Your task to perform on an android device: turn off picture-in-picture Image 0: 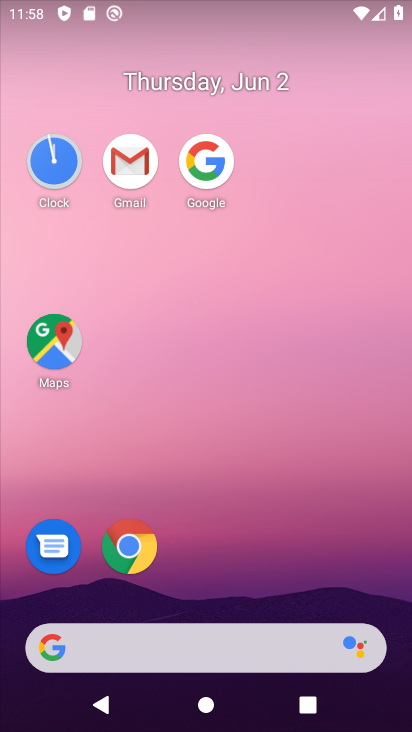
Step 0: click (137, 549)
Your task to perform on an android device: turn off picture-in-picture Image 1: 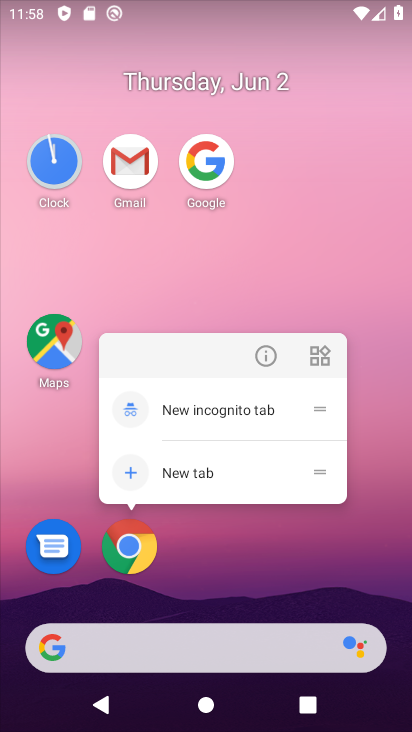
Step 1: click (268, 352)
Your task to perform on an android device: turn off picture-in-picture Image 2: 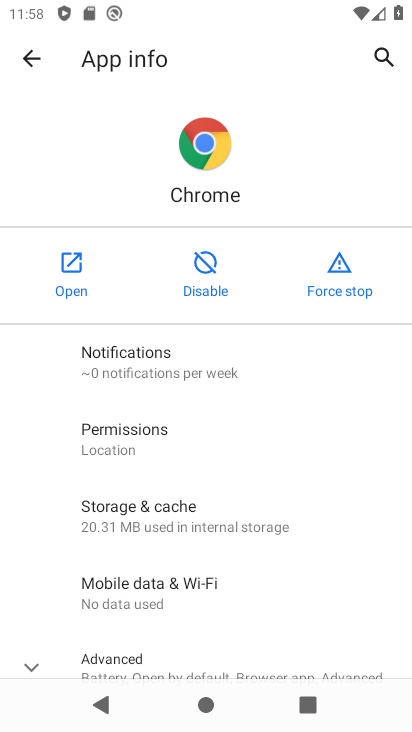
Step 2: drag from (276, 652) to (294, 261)
Your task to perform on an android device: turn off picture-in-picture Image 3: 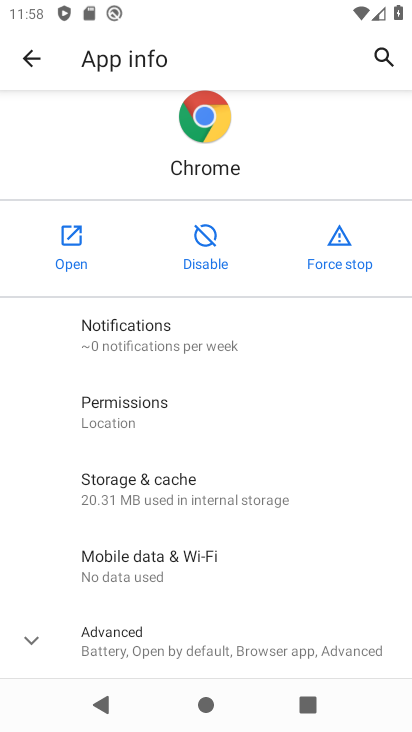
Step 3: drag from (230, 591) to (335, 280)
Your task to perform on an android device: turn off picture-in-picture Image 4: 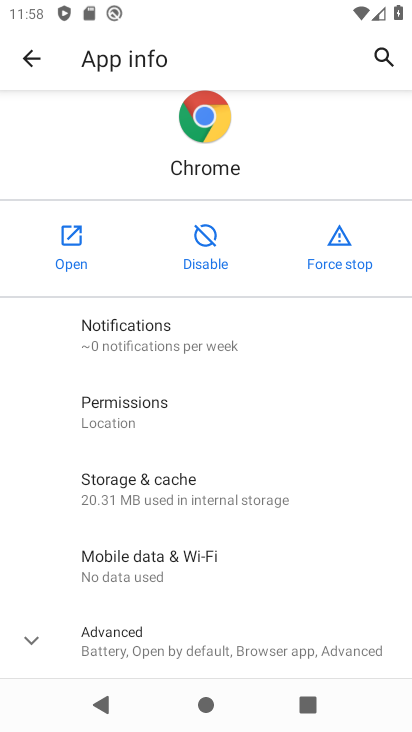
Step 4: click (200, 639)
Your task to perform on an android device: turn off picture-in-picture Image 5: 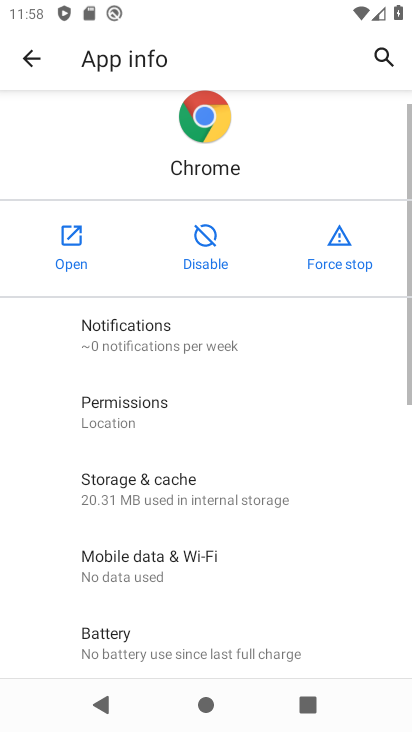
Step 5: drag from (202, 611) to (273, 173)
Your task to perform on an android device: turn off picture-in-picture Image 6: 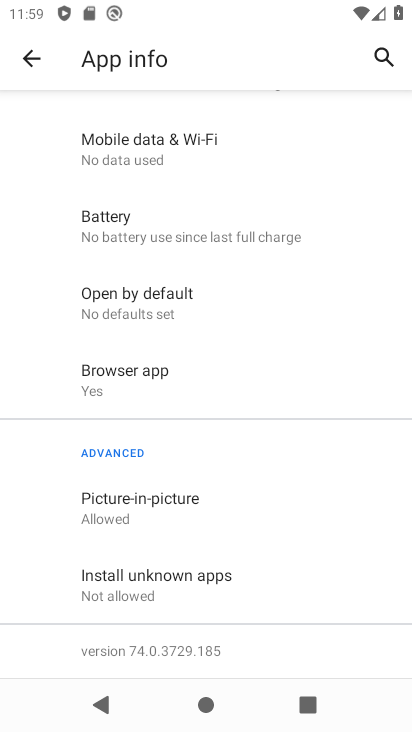
Step 6: click (221, 496)
Your task to perform on an android device: turn off picture-in-picture Image 7: 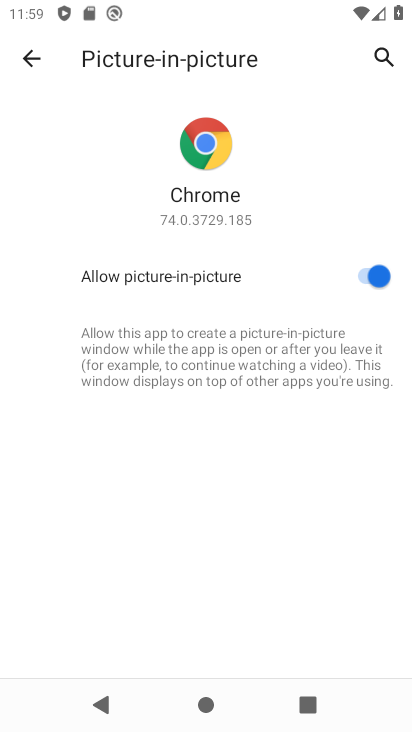
Step 7: click (357, 273)
Your task to perform on an android device: turn off picture-in-picture Image 8: 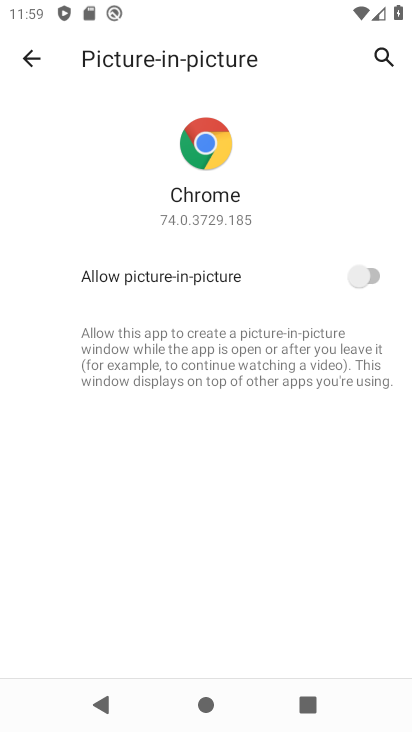
Step 8: task complete